Your task to perform on an android device: toggle data saver in the chrome app Image 0: 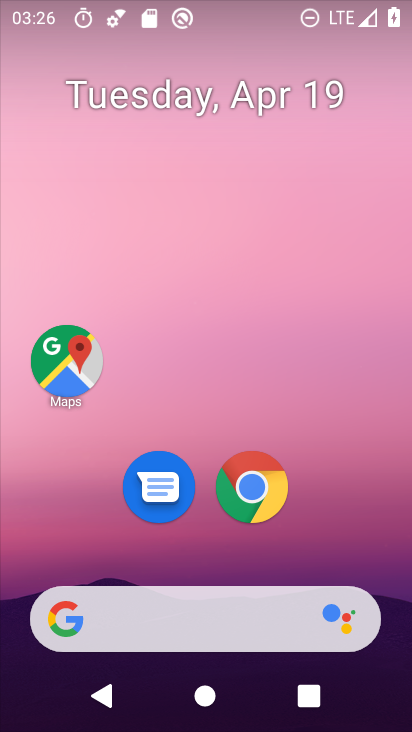
Step 0: click (259, 485)
Your task to perform on an android device: toggle data saver in the chrome app Image 1: 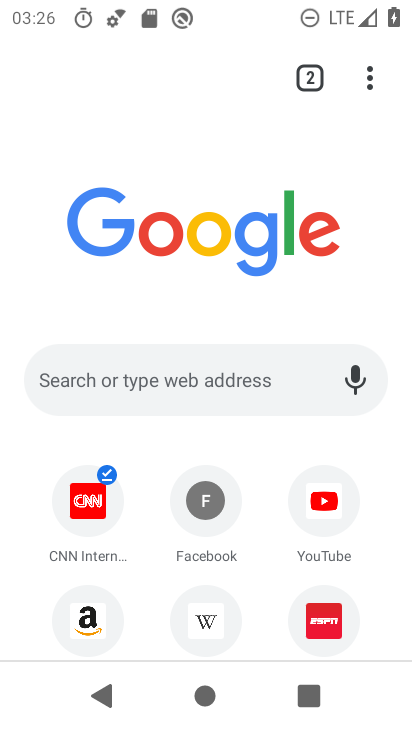
Step 1: drag from (362, 77) to (101, 532)
Your task to perform on an android device: toggle data saver in the chrome app Image 2: 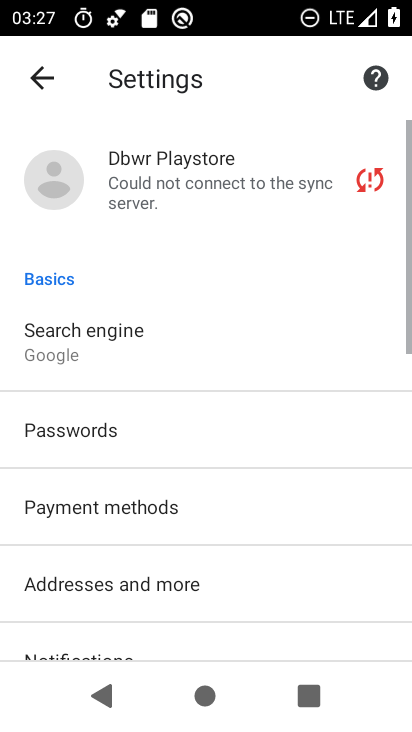
Step 2: drag from (169, 525) to (286, 40)
Your task to perform on an android device: toggle data saver in the chrome app Image 3: 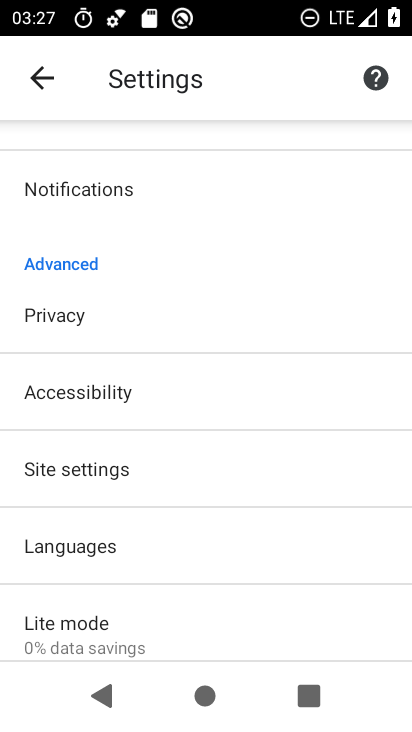
Step 3: click (63, 625)
Your task to perform on an android device: toggle data saver in the chrome app Image 4: 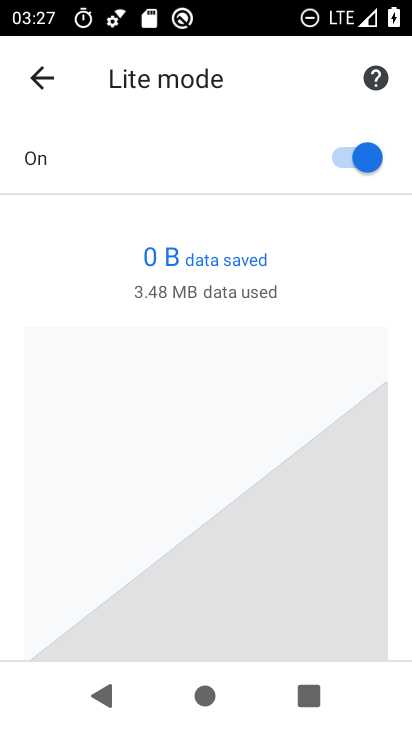
Step 4: click (358, 154)
Your task to perform on an android device: toggle data saver in the chrome app Image 5: 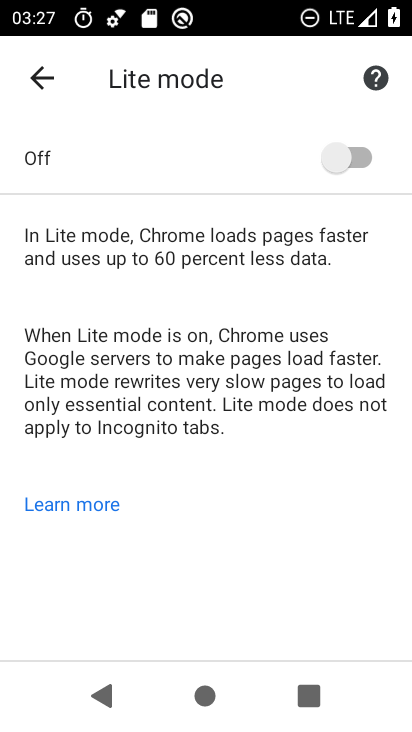
Step 5: task complete